Your task to perform on an android device: change notification settings in the gmail app Image 0: 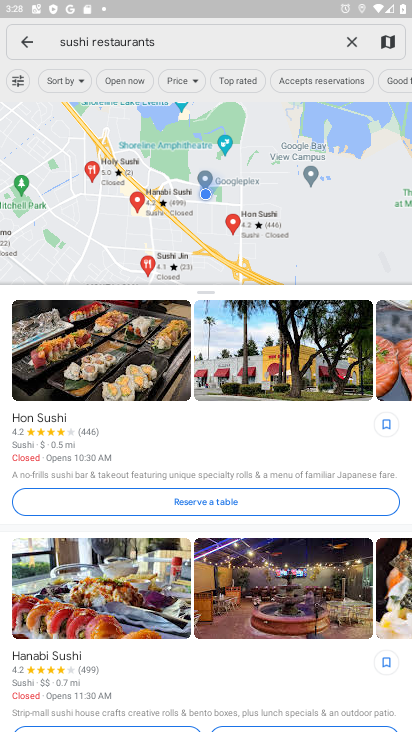
Step 0: press home button
Your task to perform on an android device: change notification settings in the gmail app Image 1: 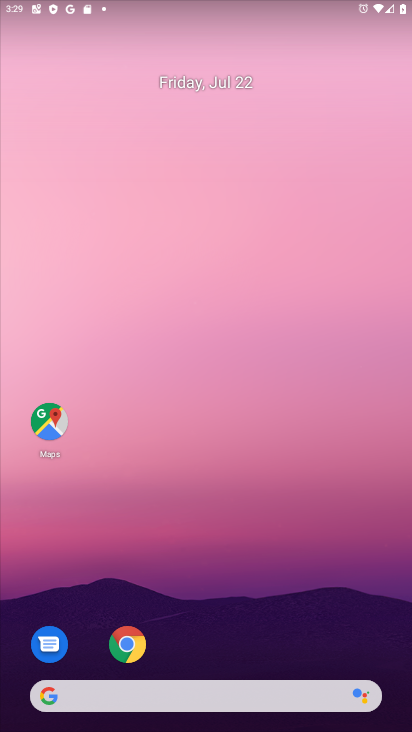
Step 1: drag from (182, 514) to (193, 220)
Your task to perform on an android device: change notification settings in the gmail app Image 2: 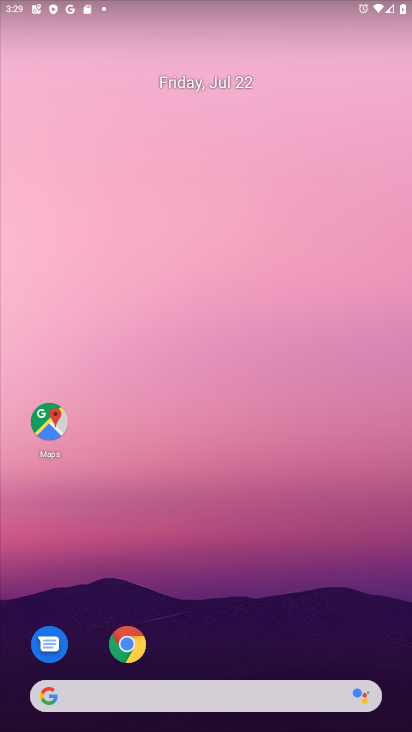
Step 2: drag from (223, 528) to (260, 234)
Your task to perform on an android device: change notification settings in the gmail app Image 3: 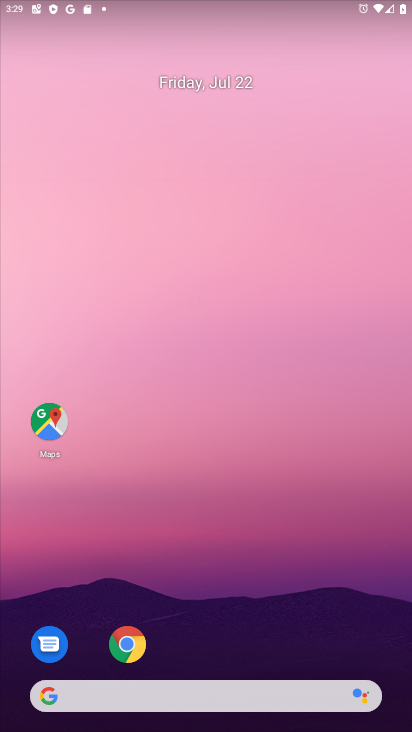
Step 3: drag from (237, 598) to (208, 194)
Your task to perform on an android device: change notification settings in the gmail app Image 4: 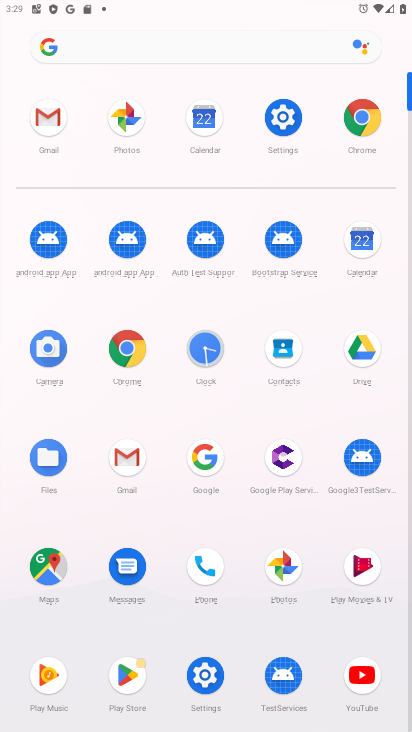
Step 4: click (128, 459)
Your task to perform on an android device: change notification settings in the gmail app Image 5: 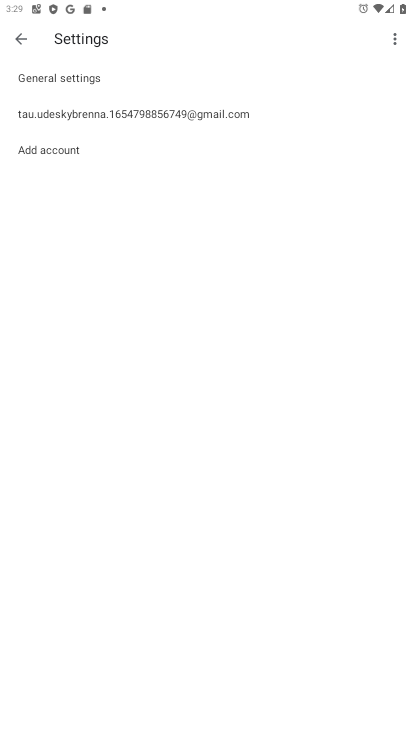
Step 5: click (21, 37)
Your task to perform on an android device: change notification settings in the gmail app Image 6: 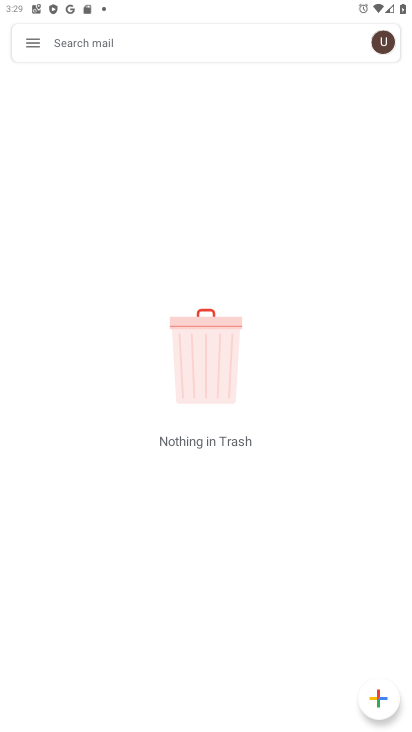
Step 6: task complete